Your task to perform on an android device: Open calendar and show me the fourth week of next month Image 0: 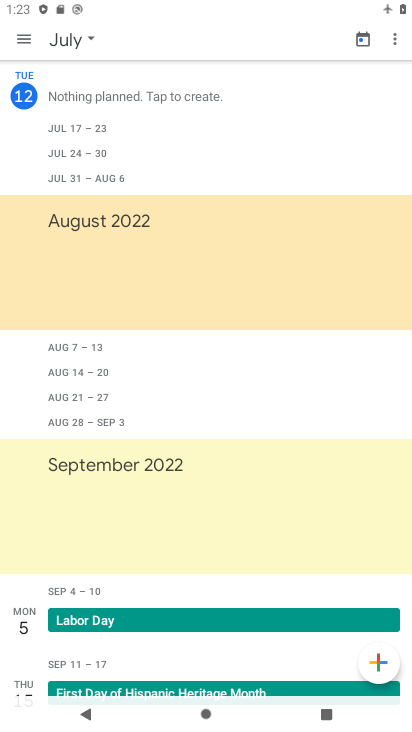
Step 0: press home button
Your task to perform on an android device: Open calendar and show me the fourth week of next month Image 1: 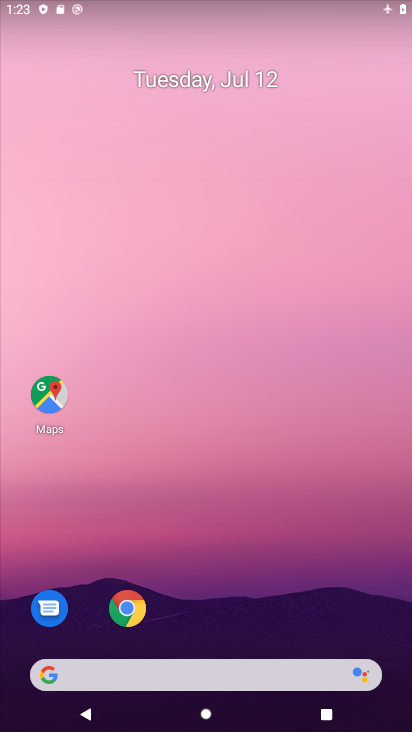
Step 1: drag from (229, 611) to (149, 37)
Your task to perform on an android device: Open calendar and show me the fourth week of next month Image 2: 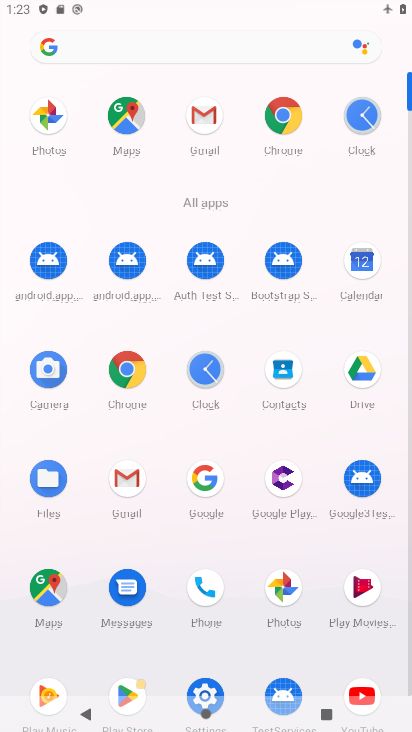
Step 2: click (358, 272)
Your task to perform on an android device: Open calendar and show me the fourth week of next month Image 3: 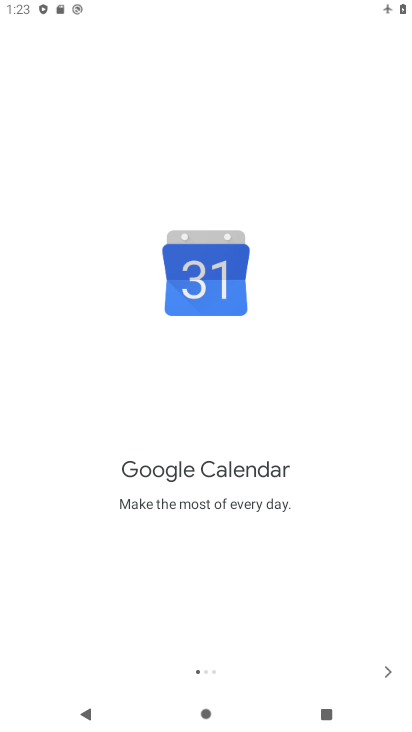
Step 3: click (382, 668)
Your task to perform on an android device: Open calendar and show me the fourth week of next month Image 4: 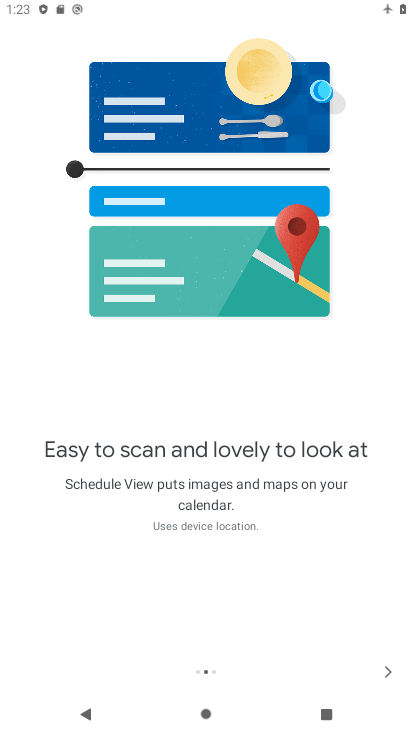
Step 4: click (382, 668)
Your task to perform on an android device: Open calendar and show me the fourth week of next month Image 5: 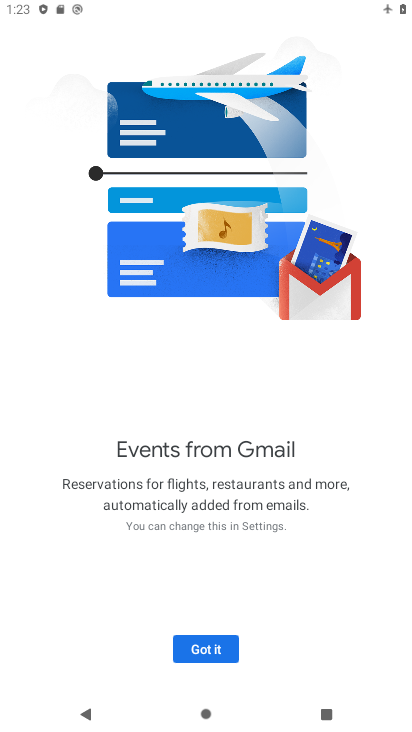
Step 5: click (208, 642)
Your task to perform on an android device: Open calendar and show me the fourth week of next month Image 6: 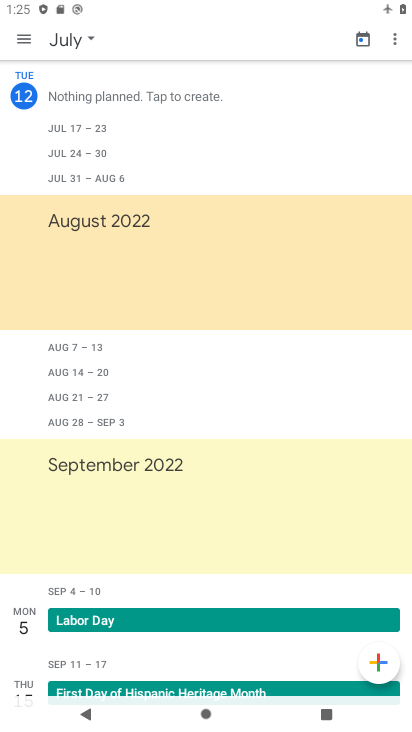
Step 6: press home button
Your task to perform on an android device: Open calendar and show me the fourth week of next month Image 7: 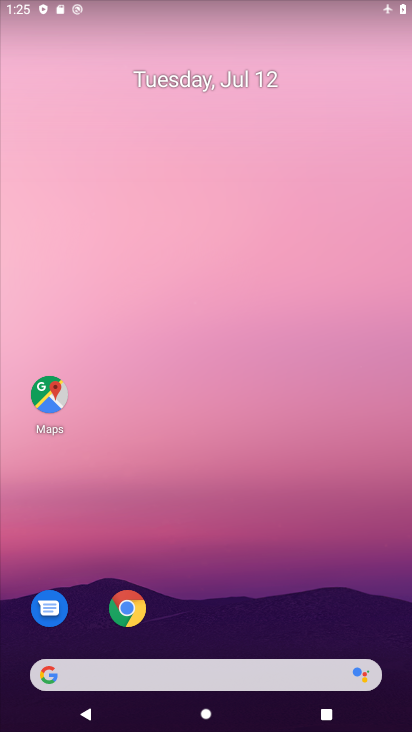
Step 7: drag from (276, 605) to (148, 33)
Your task to perform on an android device: Open calendar and show me the fourth week of next month Image 8: 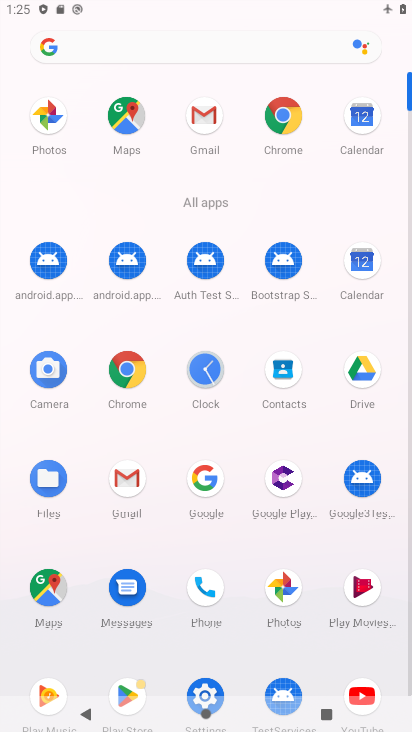
Step 8: click (364, 269)
Your task to perform on an android device: Open calendar and show me the fourth week of next month Image 9: 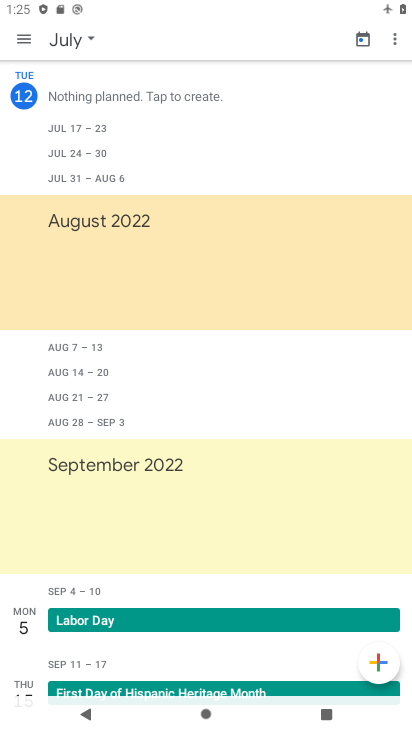
Step 9: click (22, 37)
Your task to perform on an android device: Open calendar and show me the fourth week of next month Image 10: 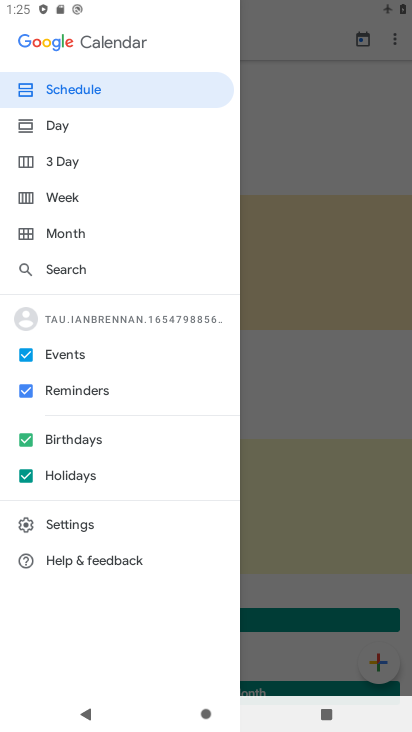
Step 10: click (70, 197)
Your task to perform on an android device: Open calendar and show me the fourth week of next month Image 11: 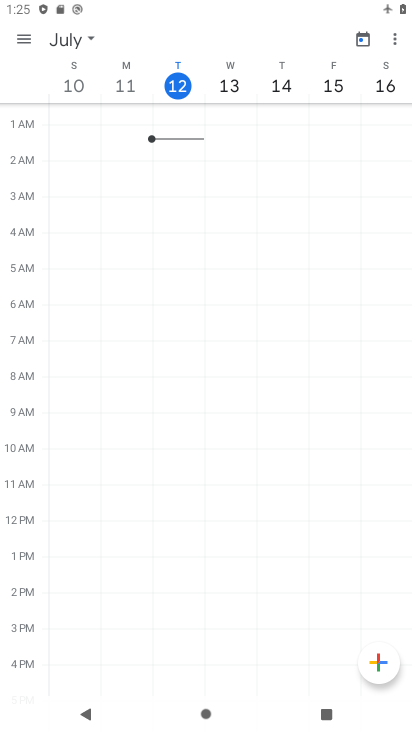
Step 11: click (79, 30)
Your task to perform on an android device: Open calendar and show me the fourth week of next month Image 12: 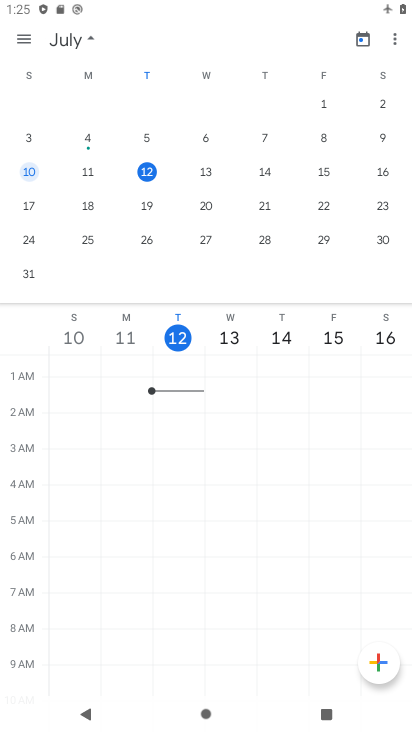
Step 12: drag from (350, 183) to (18, 149)
Your task to perform on an android device: Open calendar and show me the fourth week of next month Image 13: 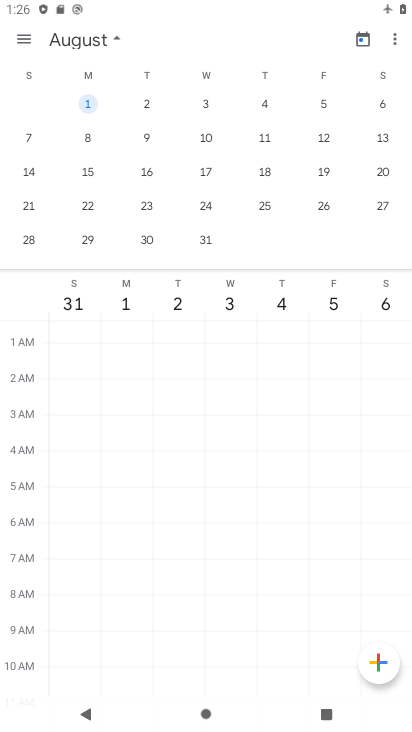
Step 13: click (77, 202)
Your task to perform on an android device: Open calendar and show me the fourth week of next month Image 14: 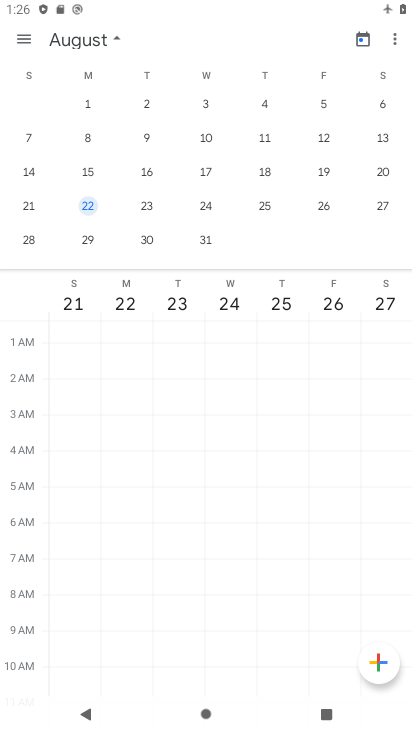
Step 14: task complete